Your task to perform on an android device: turn off priority inbox in the gmail app Image 0: 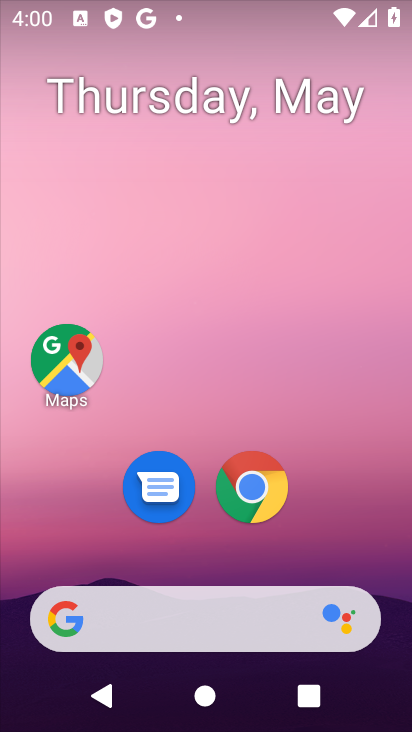
Step 0: drag from (185, 555) to (249, 127)
Your task to perform on an android device: turn off priority inbox in the gmail app Image 1: 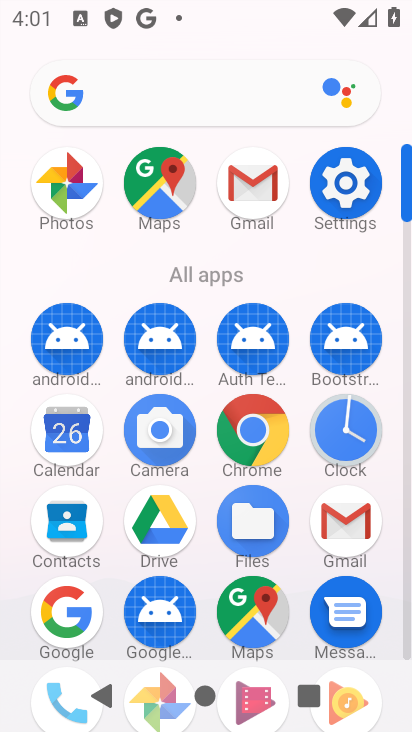
Step 1: click (225, 199)
Your task to perform on an android device: turn off priority inbox in the gmail app Image 2: 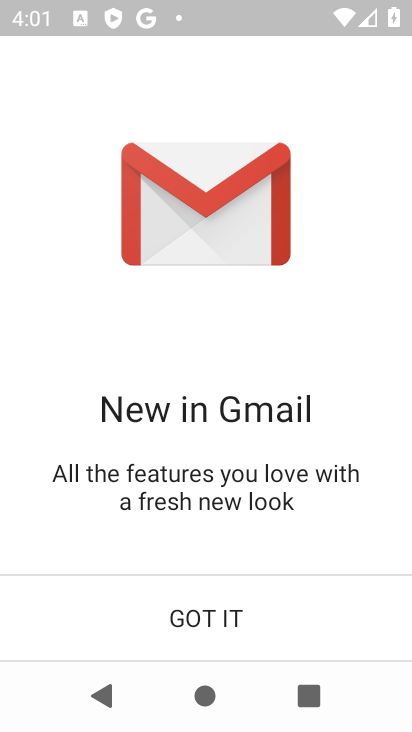
Step 2: click (230, 593)
Your task to perform on an android device: turn off priority inbox in the gmail app Image 3: 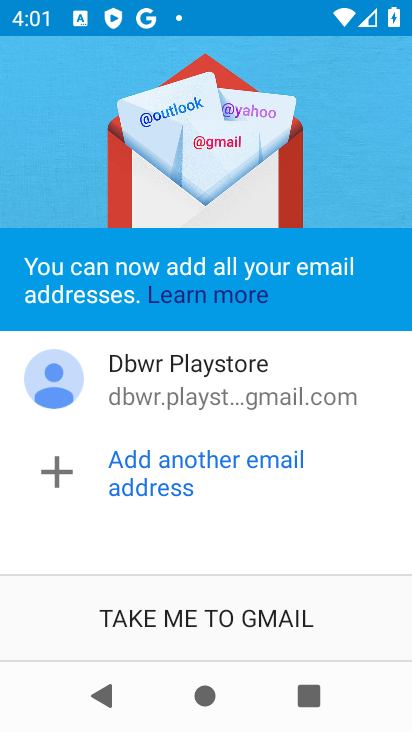
Step 3: click (163, 619)
Your task to perform on an android device: turn off priority inbox in the gmail app Image 4: 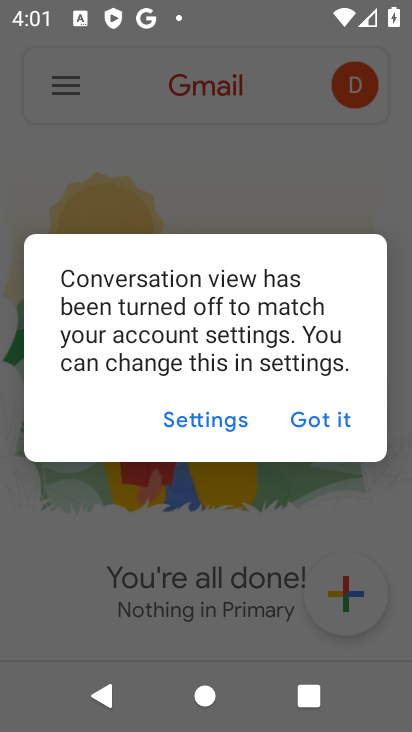
Step 4: click (303, 420)
Your task to perform on an android device: turn off priority inbox in the gmail app Image 5: 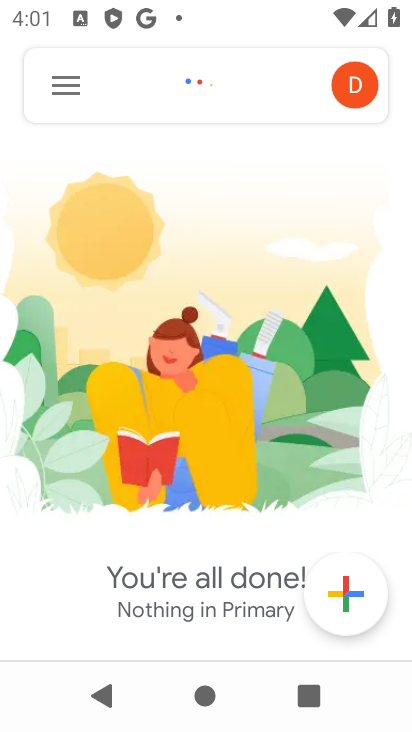
Step 5: click (55, 93)
Your task to perform on an android device: turn off priority inbox in the gmail app Image 6: 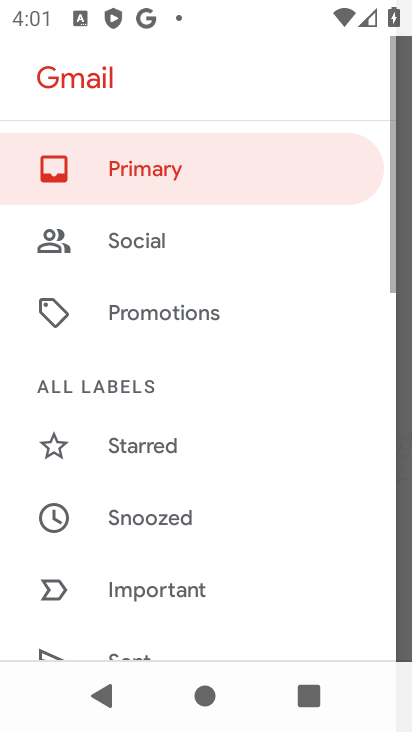
Step 6: drag from (192, 583) to (229, 284)
Your task to perform on an android device: turn off priority inbox in the gmail app Image 7: 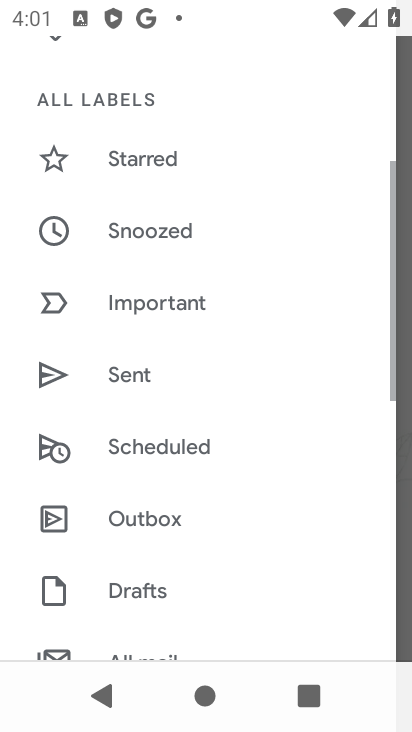
Step 7: drag from (223, 615) to (252, 330)
Your task to perform on an android device: turn off priority inbox in the gmail app Image 8: 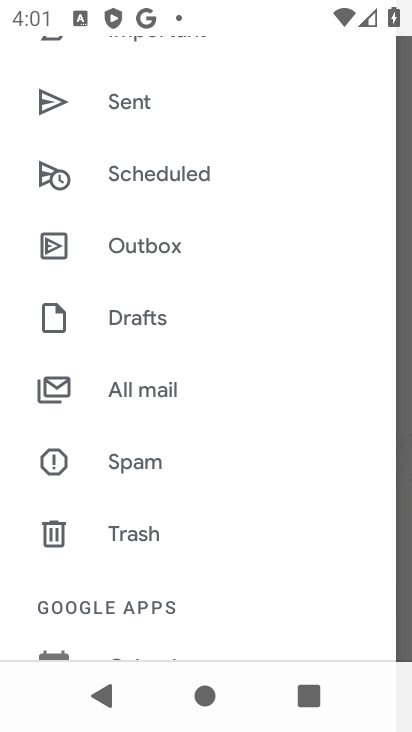
Step 8: drag from (222, 584) to (255, 378)
Your task to perform on an android device: turn off priority inbox in the gmail app Image 9: 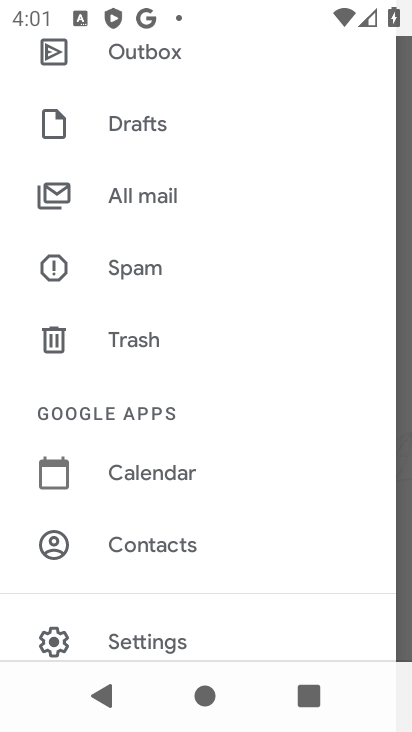
Step 9: drag from (226, 550) to (239, 403)
Your task to perform on an android device: turn off priority inbox in the gmail app Image 10: 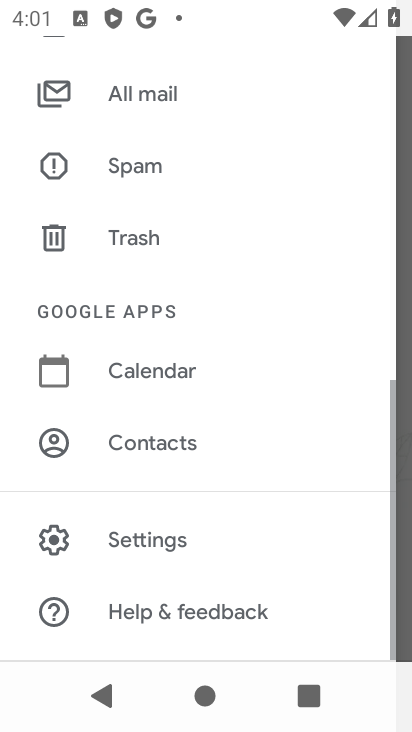
Step 10: click (207, 550)
Your task to perform on an android device: turn off priority inbox in the gmail app Image 11: 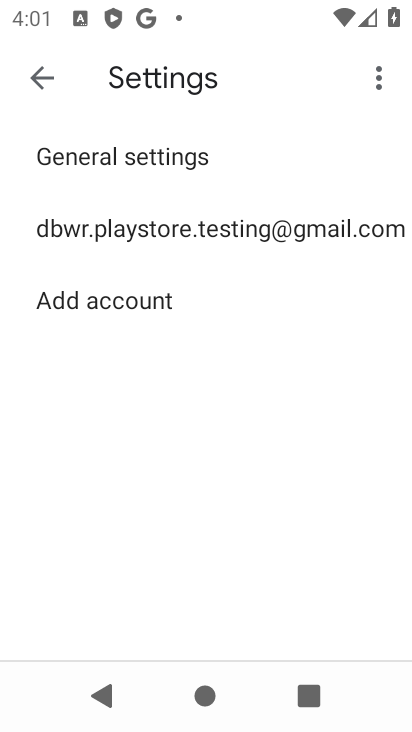
Step 11: click (163, 232)
Your task to perform on an android device: turn off priority inbox in the gmail app Image 12: 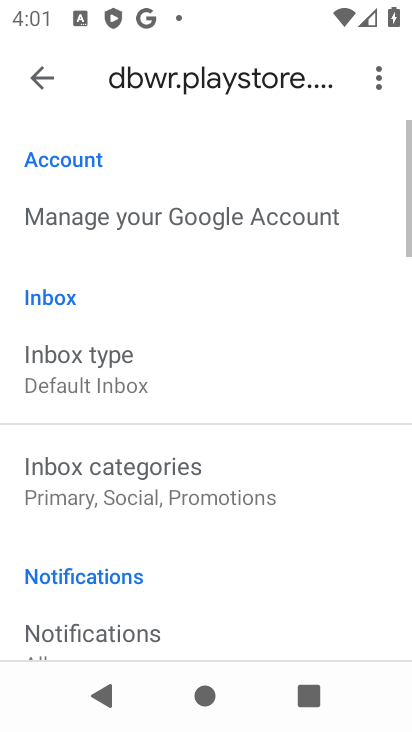
Step 12: click (163, 369)
Your task to perform on an android device: turn off priority inbox in the gmail app Image 13: 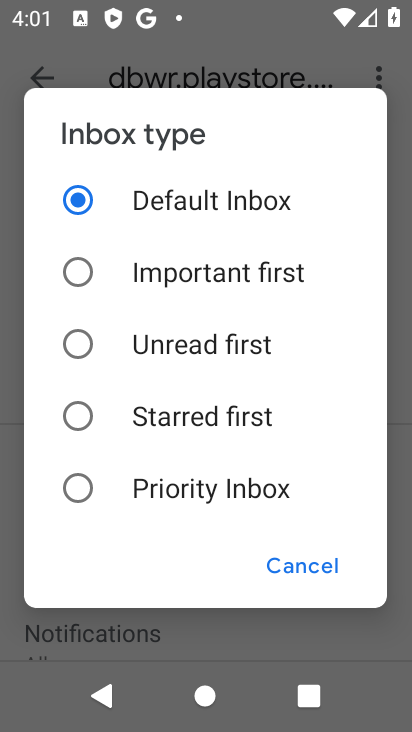
Step 13: task complete